Your task to perform on an android device: open device folders in google photos Image 0: 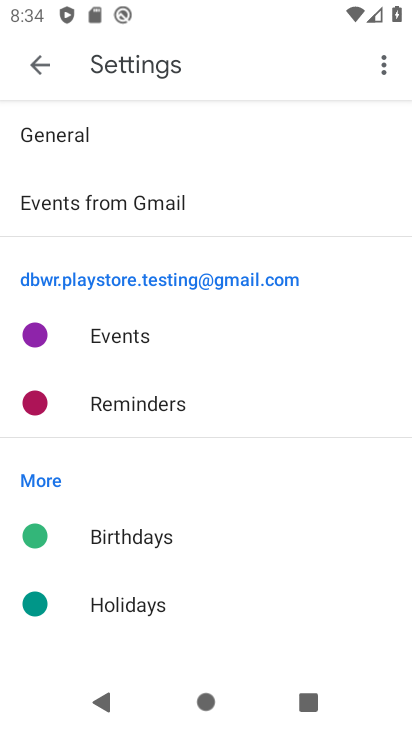
Step 0: press home button
Your task to perform on an android device: open device folders in google photos Image 1: 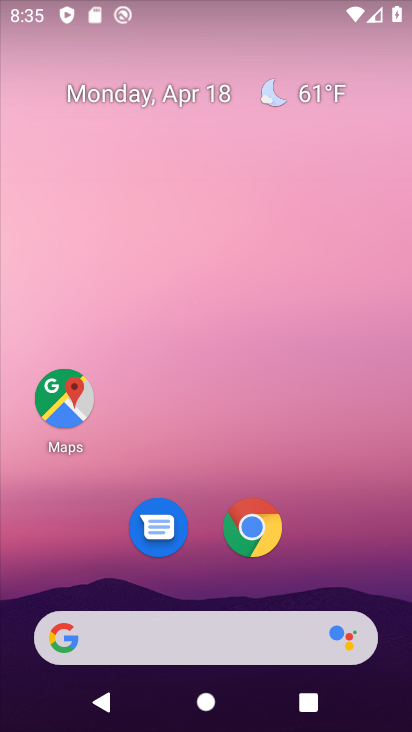
Step 1: drag from (338, 596) to (323, 10)
Your task to perform on an android device: open device folders in google photos Image 2: 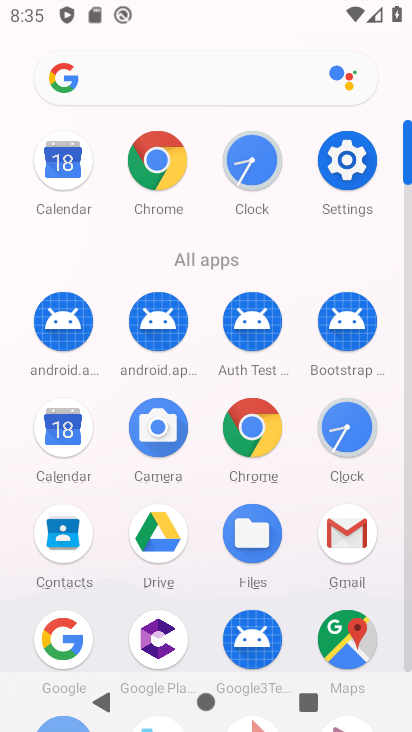
Step 2: drag from (407, 573) to (405, 506)
Your task to perform on an android device: open device folders in google photos Image 3: 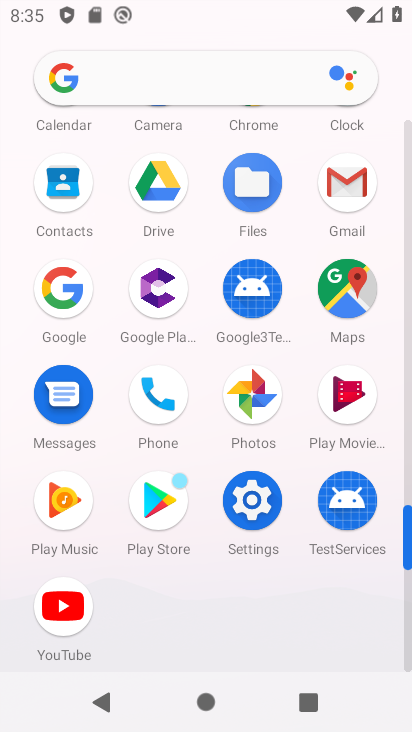
Step 3: click (251, 391)
Your task to perform on an android device: open device folders in google photos Image 4: 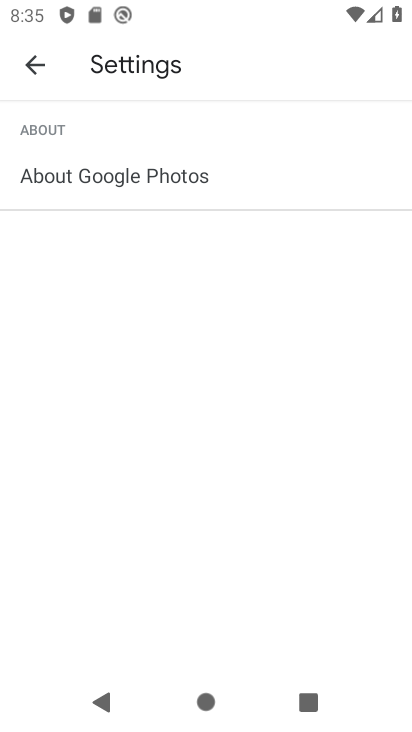
Step 4: click (41, 65)
Your task to perform on an android device: open device folders in google photos Image 5: 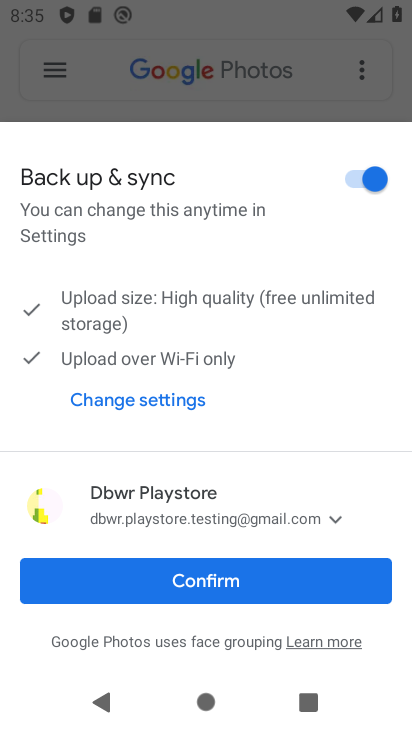
Step 5: click (171, 570)
Your task to perform on an android device: open device folders in google photos Image 6: 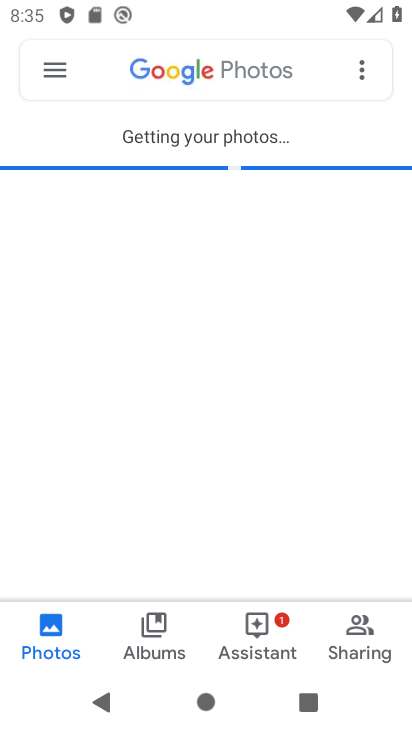
Step 6: click (51, 71)
Your task to perform on an android device: open device folders in google photos Image 7: 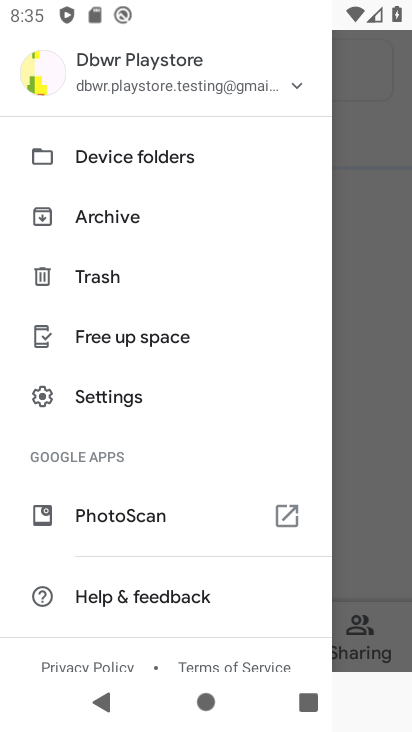
Step 7: click (101, 165)
Your task to perform on an android device: open device folders in google photos Image 8: 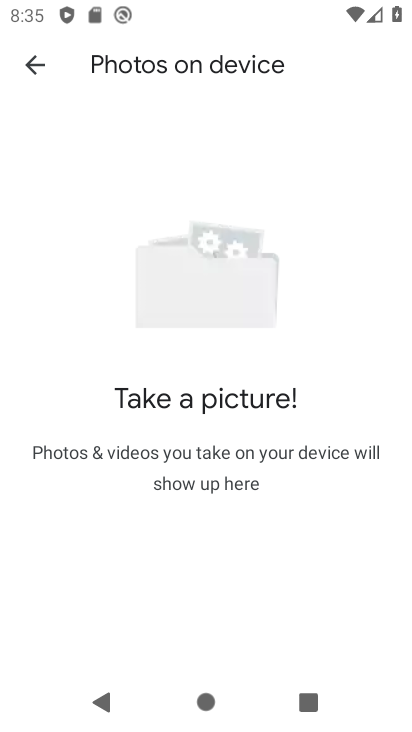
Step 8: task complete